Your task to perform on an android device: move an email to a new category in the gmail app Image 0: 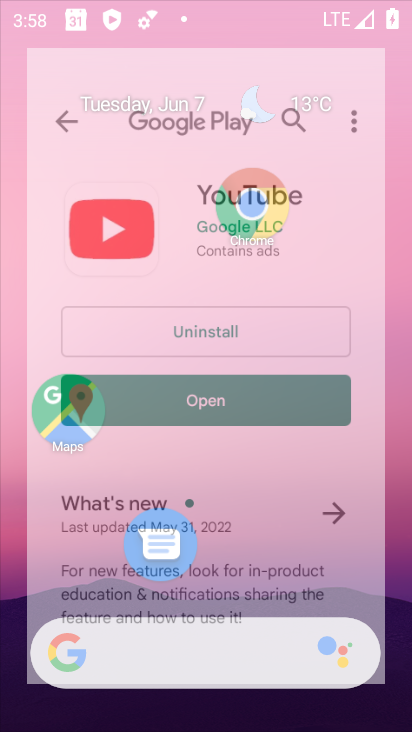
Step 0: press home button
Your task to perform on an android device: move an email to a new category in the gmail app Image 1: 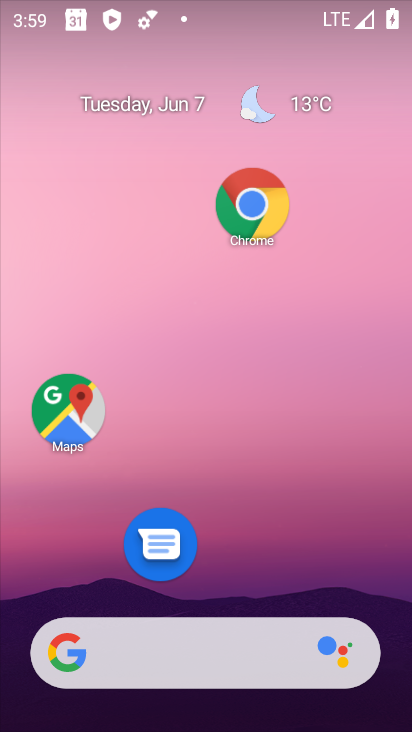
Step 1: drag from (225, 587) to (285, 175)
Your task to perform on an android device: move an email to a new category in the gmail app Image 2: 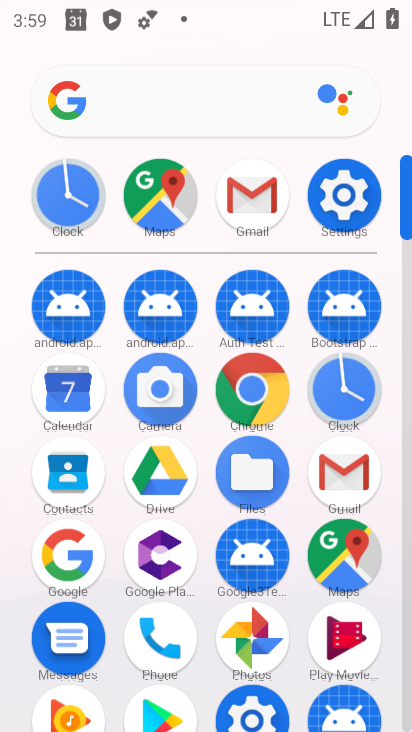
Step 2: click (249, 186)
Your task to perform on an android device: move an email to a new category in the gmail app Image 3: 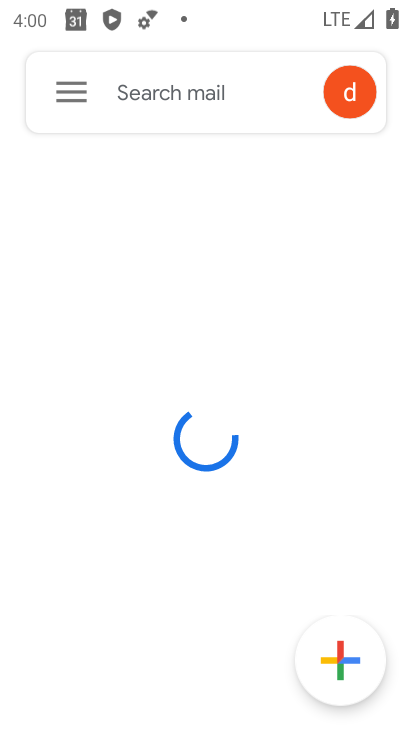
Step 3: task complete